Your task to perform on an android device: install app "DuckDuckGo Privacy Browser" Image 0: 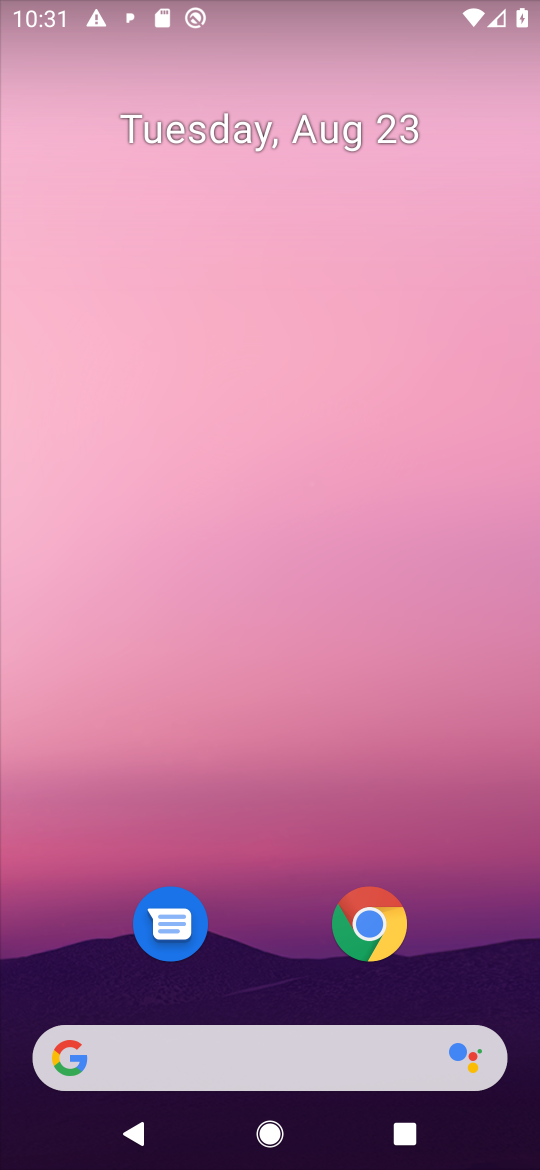
Step 0: press home button
Your task to perform on an android device: install app "DuckDuckGo Privacy Browser" Image 1: 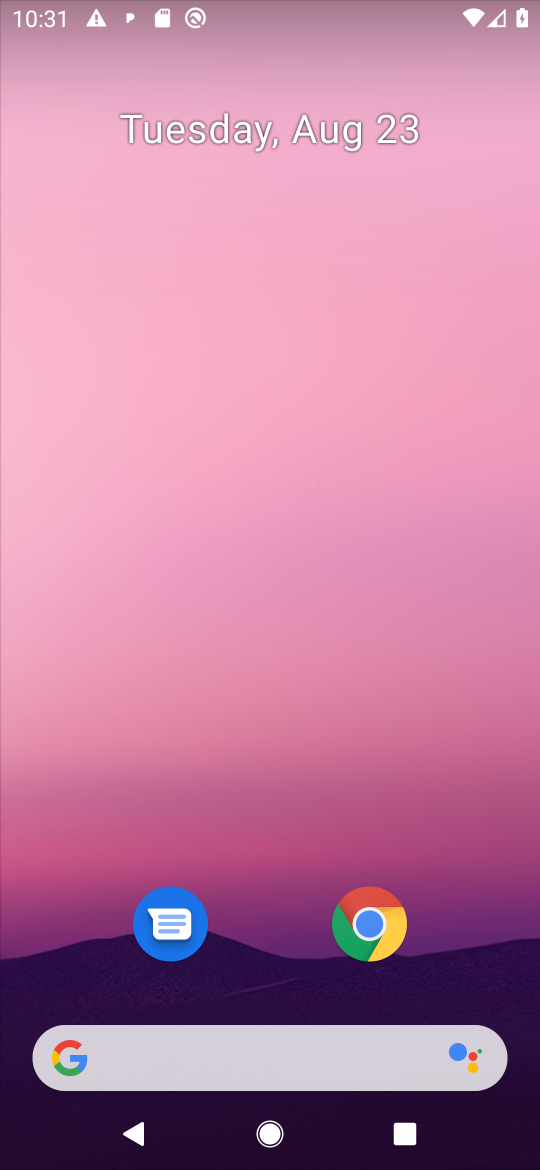
Step 1: drag from (493, 965) to (477, 128)
Your task to perform on an android device: install app "DuckDuckGo Privacy Browser" Image 2: 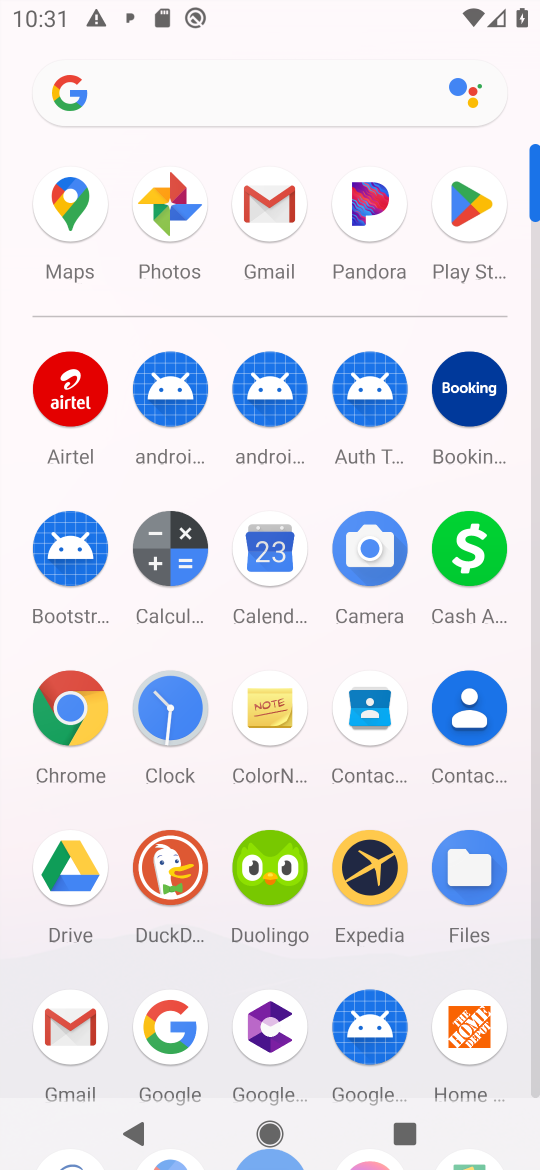
Step 2: click (473, 213)
Your task to perform on an android device: install app "DuckDuckGo Privacy Browser" Image 3: 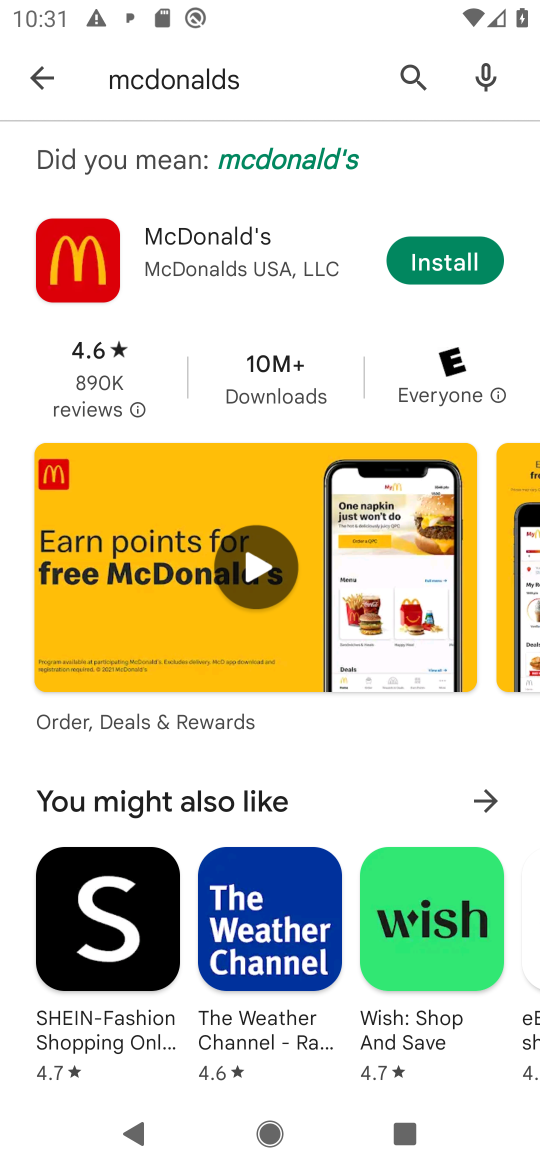
Step 3: press back button
Your task to perform on an android device: install app "DuckDuckGo Privacy Browser" Image 4: 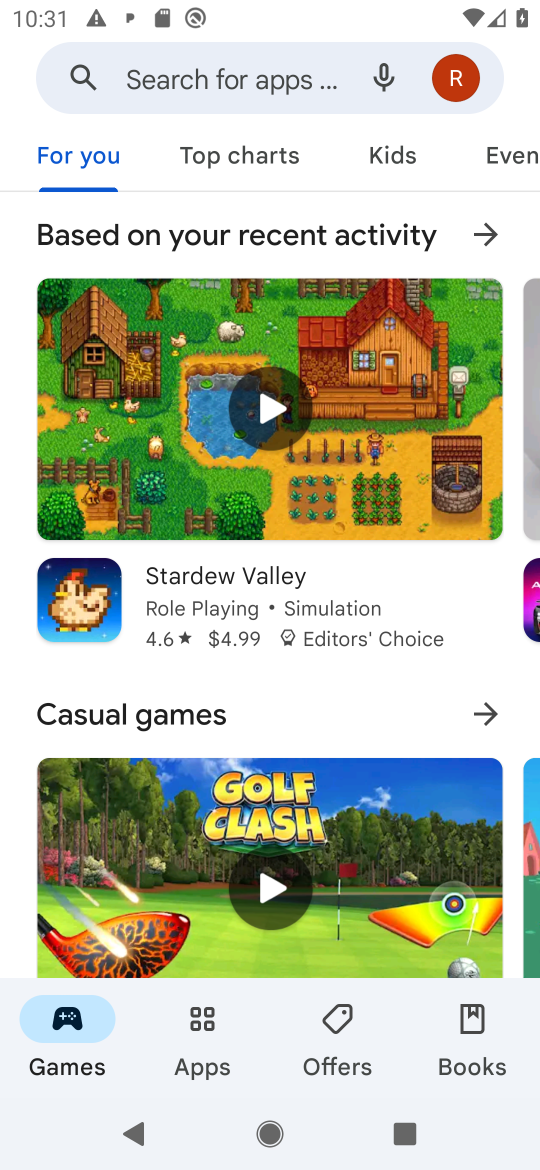
Step 4: click (220, 79)
Your task to perform on an android device: install app "DuckDuckGo Privacy Browser" Image 5: 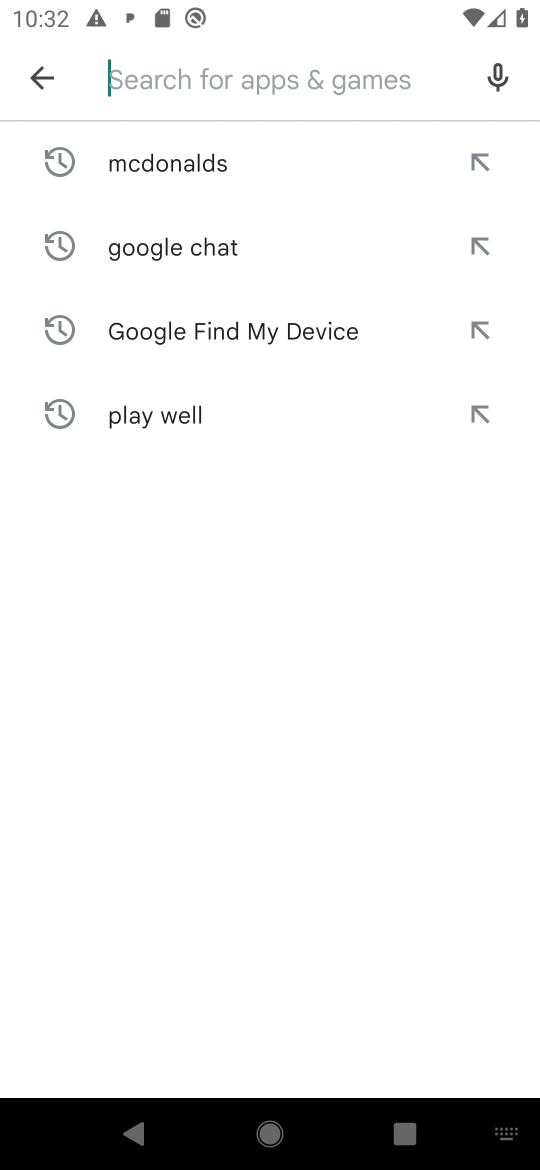
Step 5: press enter
Your task to perform on an android device: install app "DuckDuckGo Privacy Browser" Image 6: 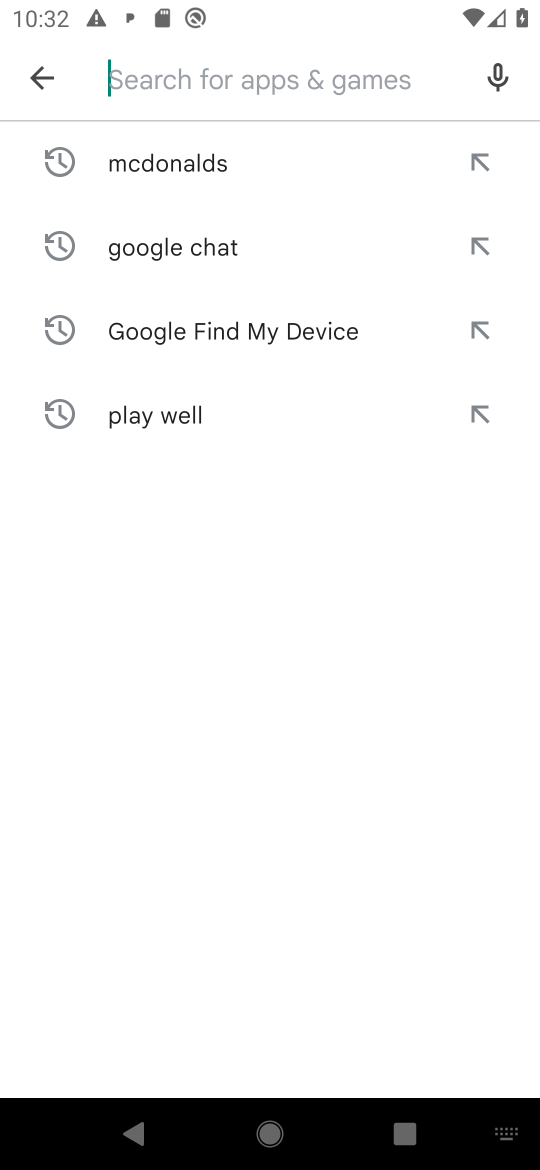
Step 6: type "DuckDuckGo Privacy Browser"
Your task to perform on an android device: install app "DuckDuckGo Privacy Browser" Image 7: 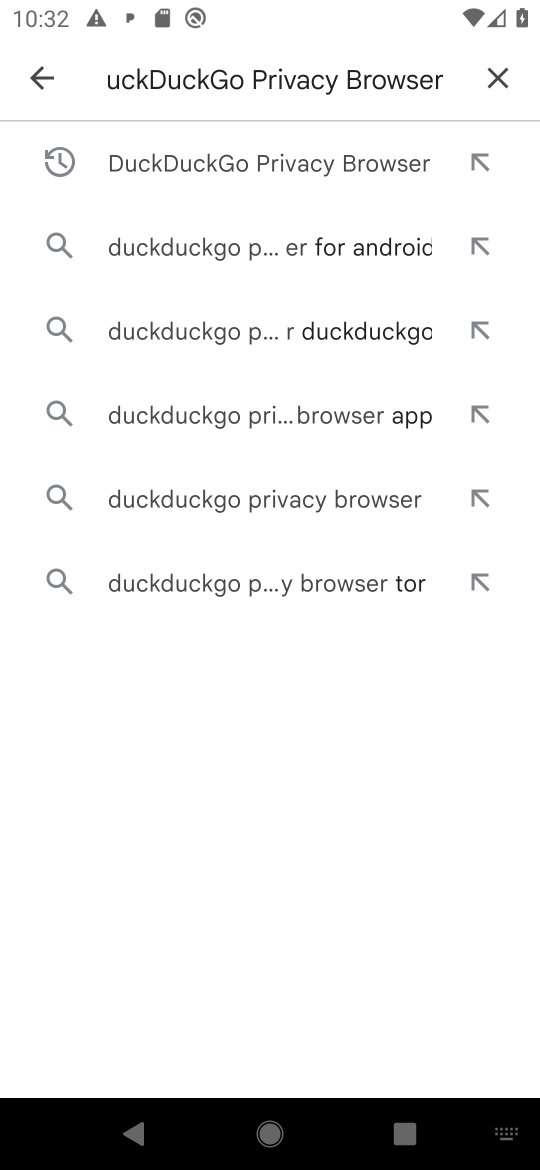
Step 7: click (323, 161)
Your task to perform on an android device: install app "DuckDuckGo Privacy Browser" Image 8: 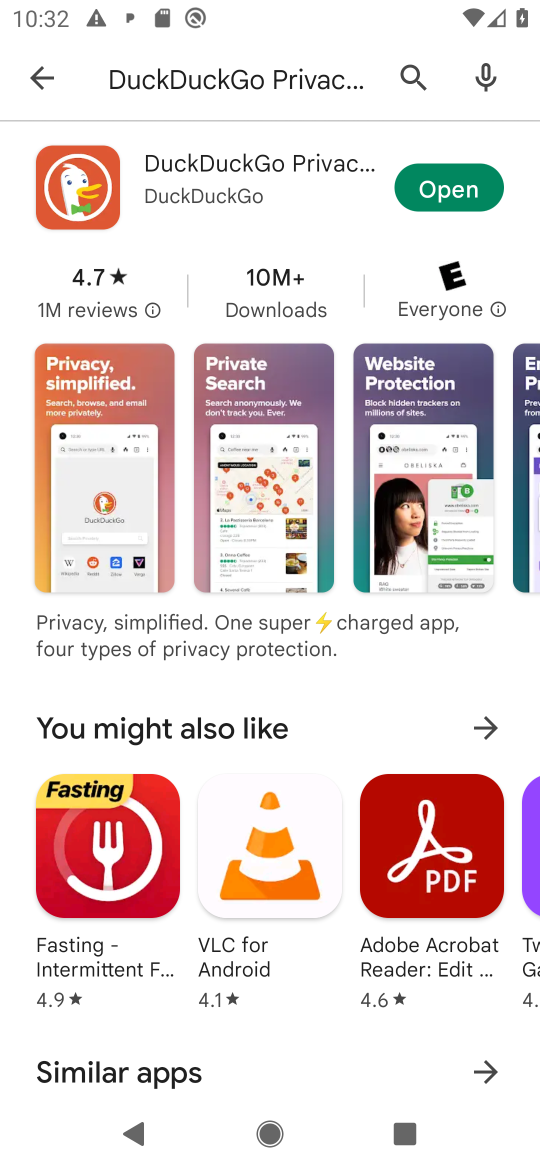
Step 8: task complete